Your task to perform on an android device: add a contact Image 0: 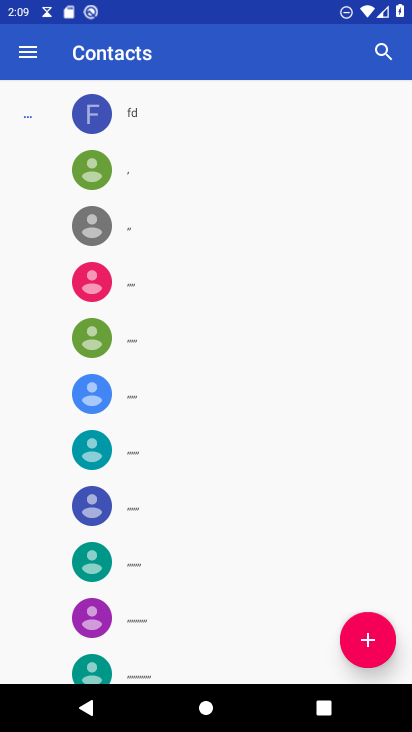
Step 0: click (357, 638)
Your task to perform on an android device: add a contact Image 1: 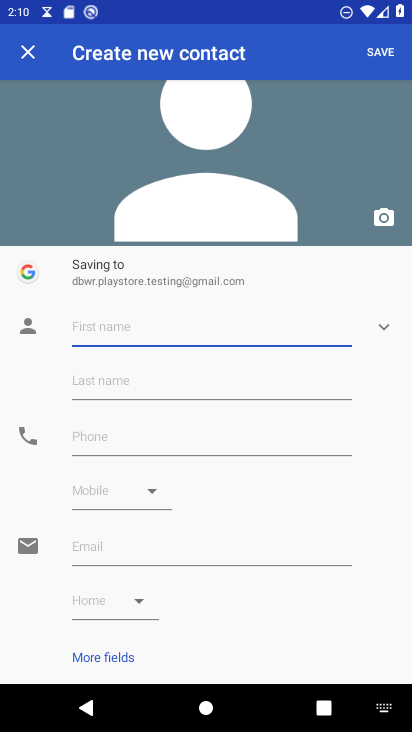
Step 1: type "vjhvjhvjh"
Your task to perform on an android device: add a contact Image 2: 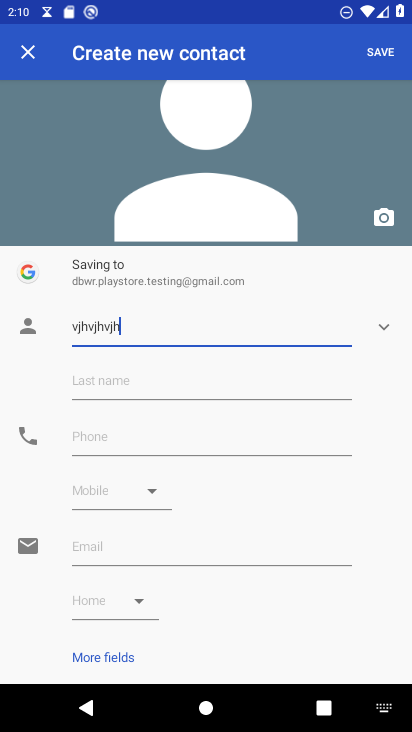
Step 2: click (342, 432)
Your task to perform on an android device: add a contact Image 3: 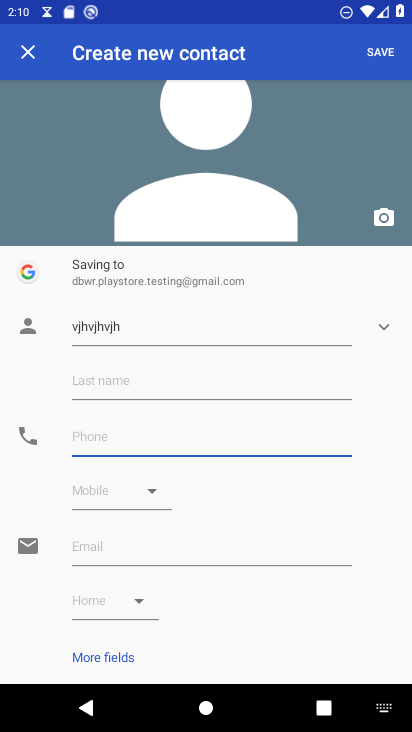
Step 3: type "6768687687"
Your task to perform on an android device: add a contact Image 4: 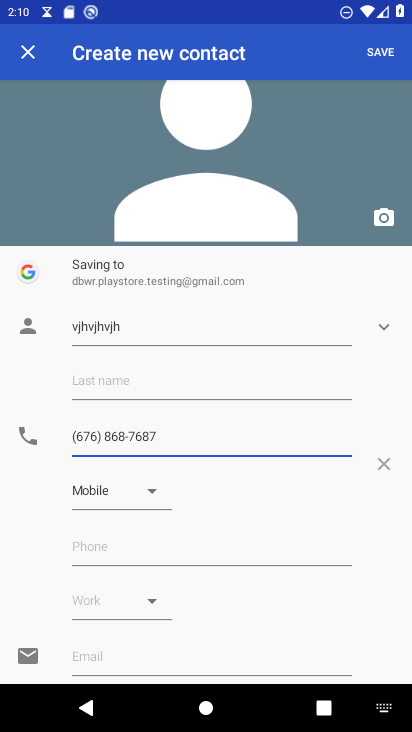
Step 4: click (381, 54)
Your task to perform on an android device: add a contact Image 5: 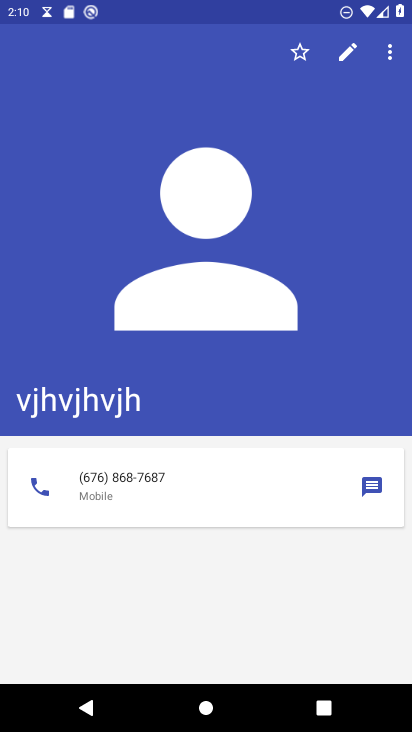
Step 5: task complete